Your task to perform on an android device: Clear the cart on target.com. Image 0: 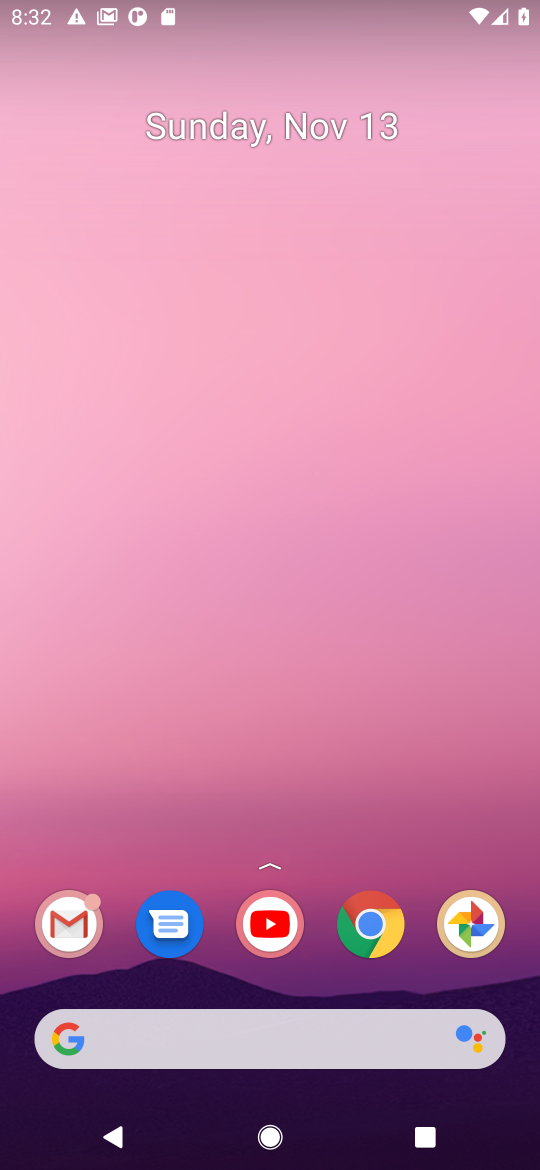
Step 0: click (372, 932)
Your task to perform on an android device: Clear the cart on target.com. Image 1: 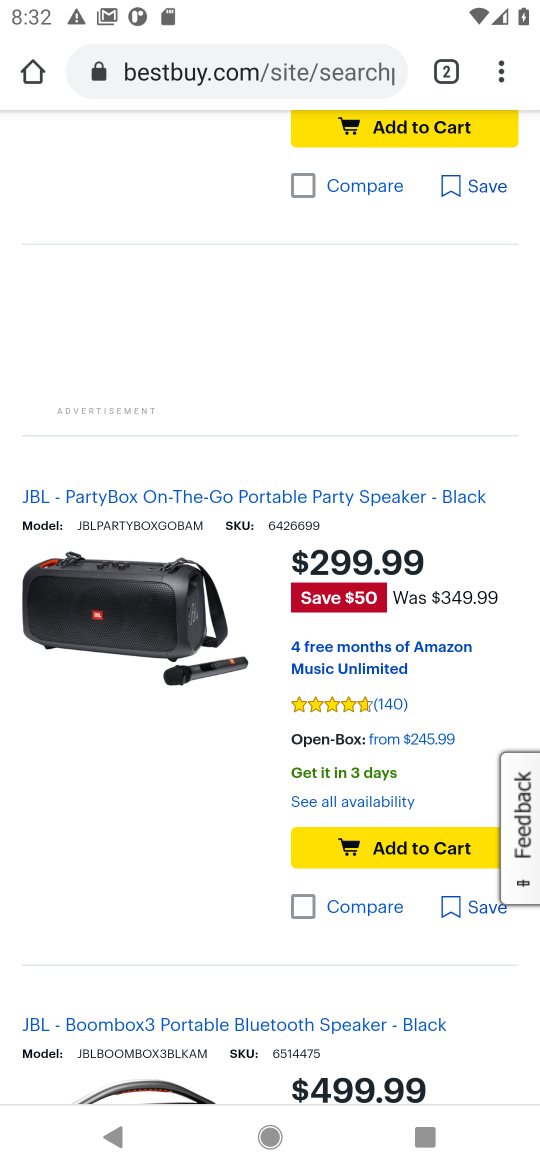
Step 1: click (218, 74)
Your task to perform on an android device: Clear the cart on target.com. Image 2: 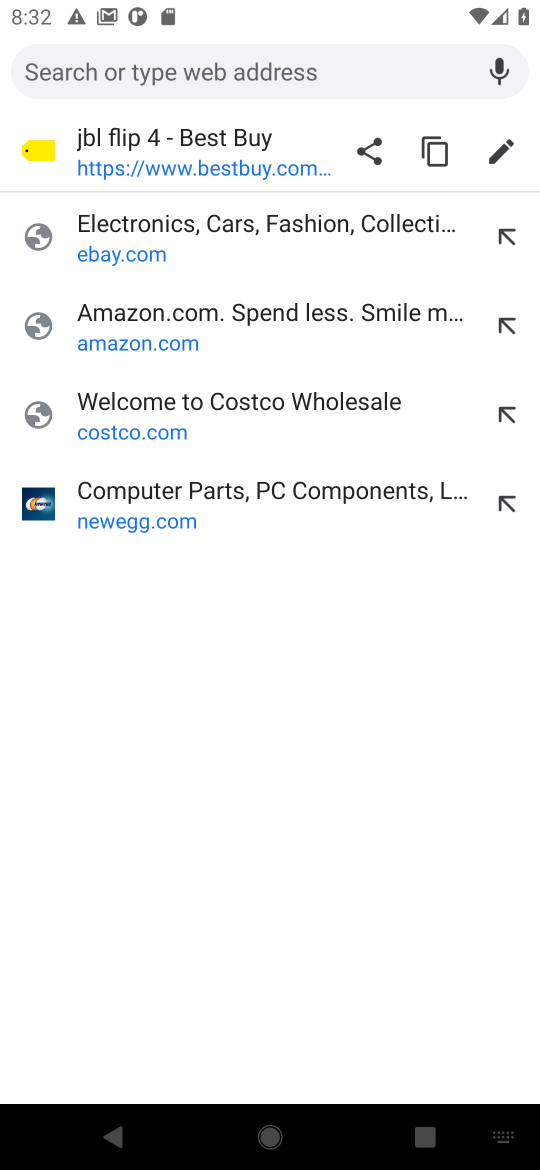
Step 2: type "target.com"
Your task to perform on an android device: Clear the cart on target.com. Image 3: 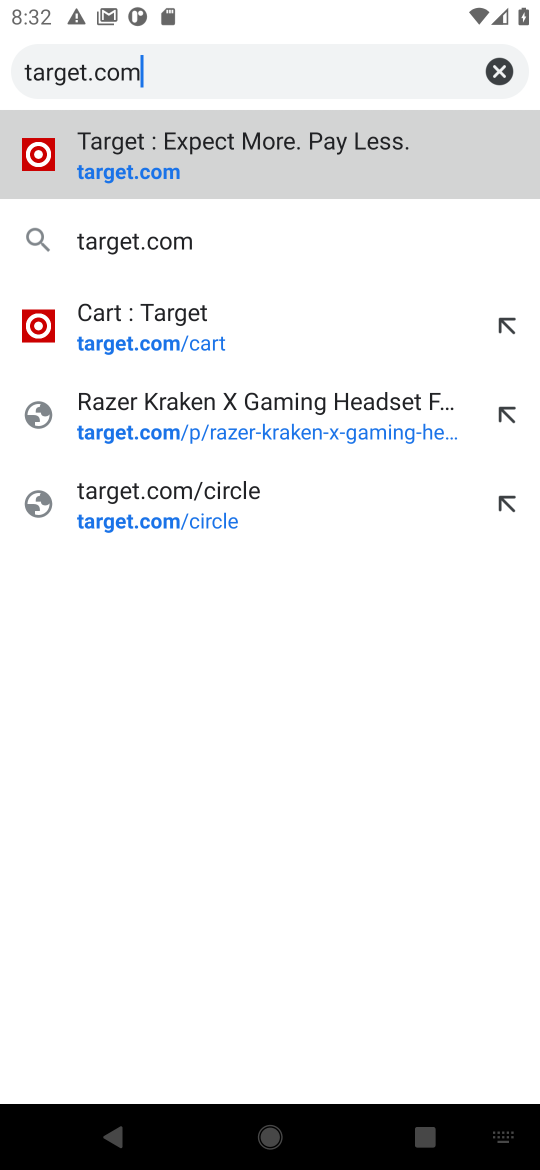
Step 3: click (138, 169)
Your task to perform on an android device: Clear the cart on target.com. Image 4: 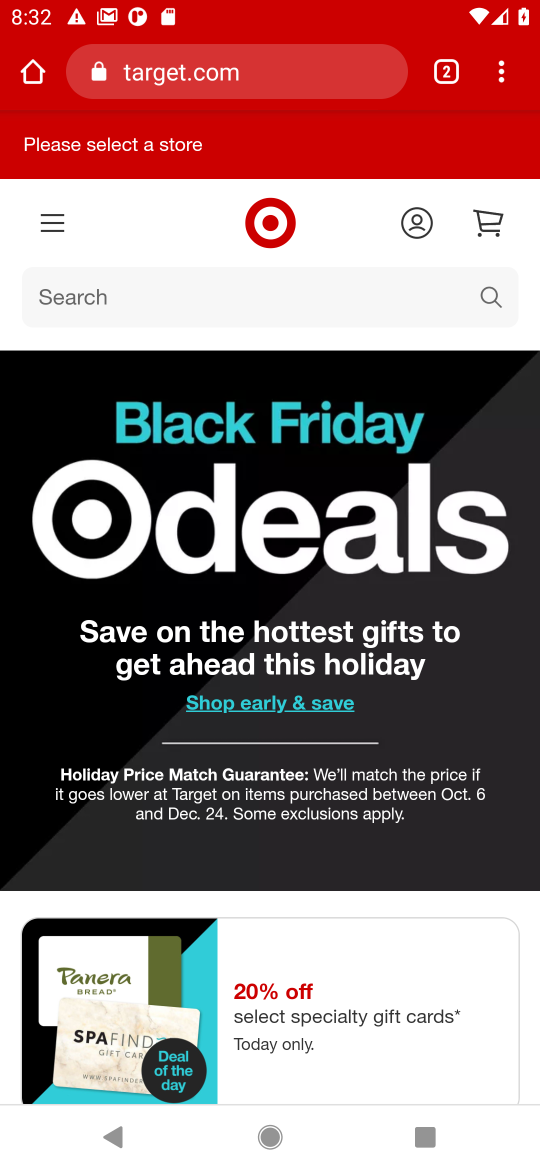
Step 4: click (482, 220)
Your task to perform on an android device: Clear the cart on target.com. Image 5: 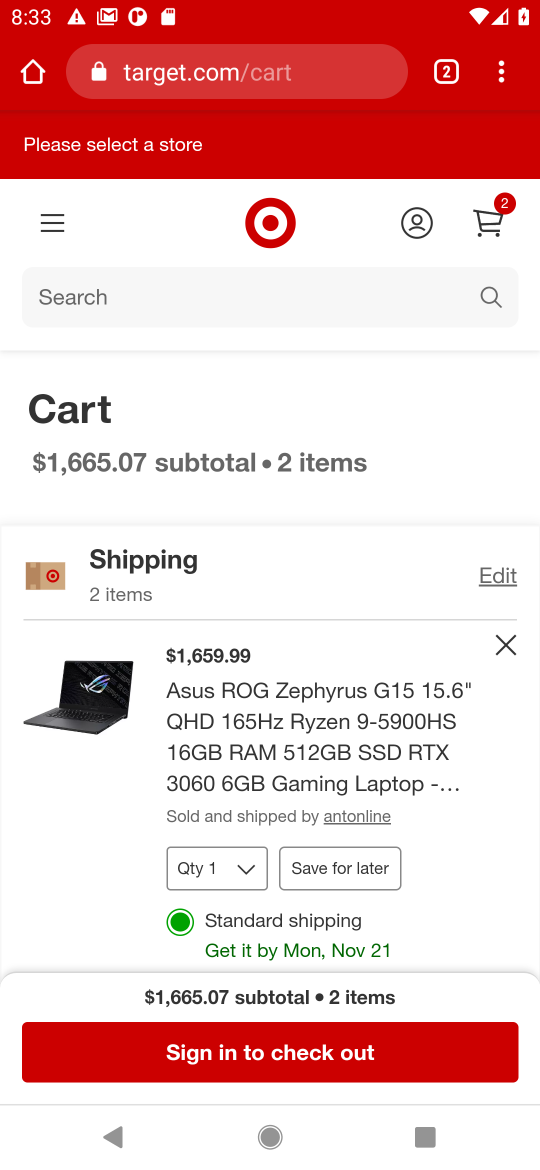
Step 5: click (498, 633)
Your task to perform on an android device: Clear the cart on target.com. Image 6: 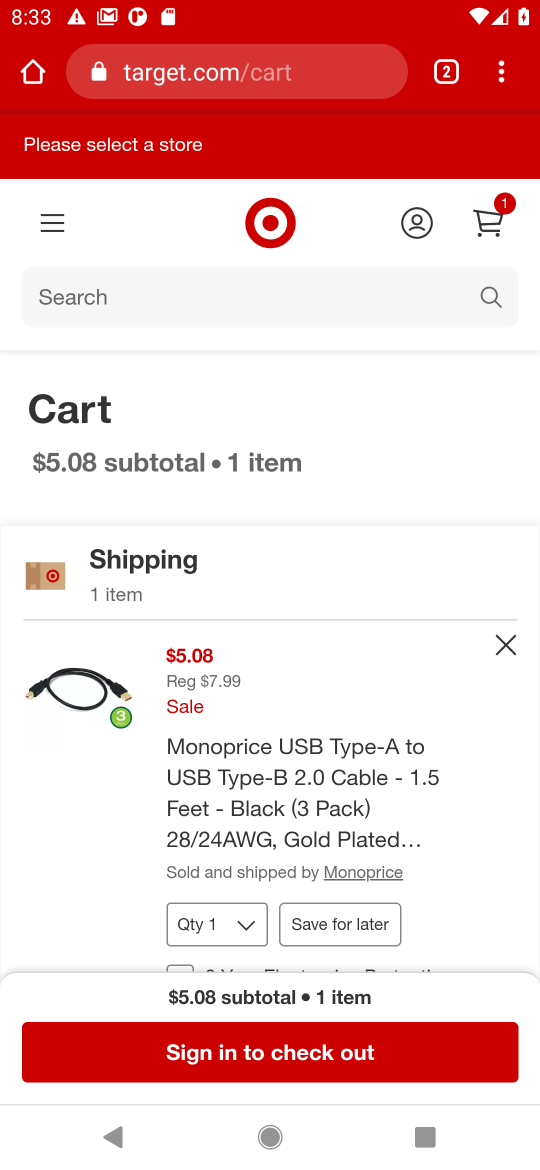
Step 6: click (498, 637)
Your task to perform on an android device: Clear the cart on target.com. Image 7: 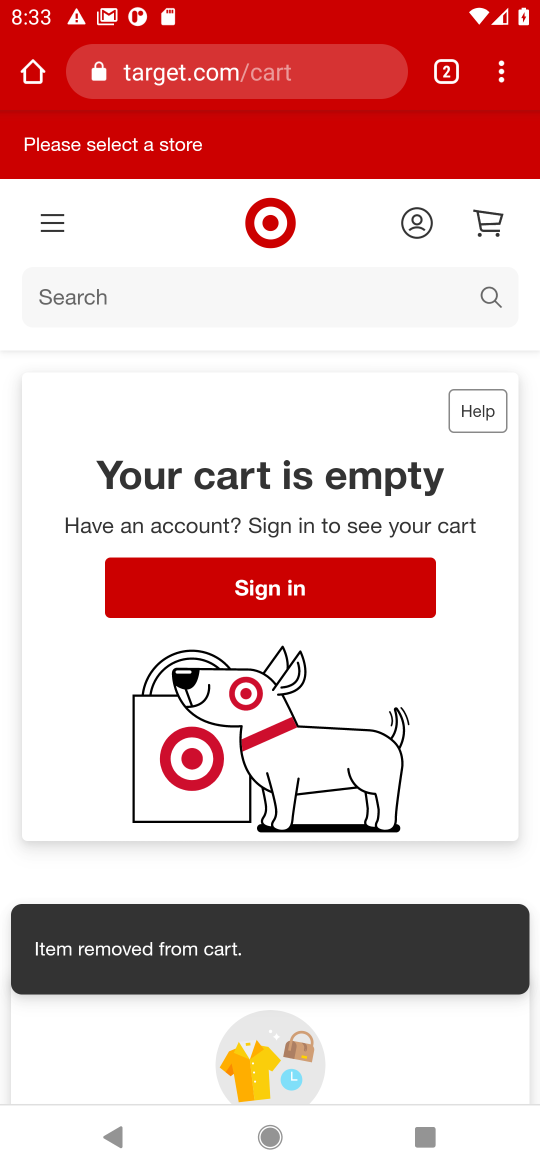
Step 7: task complete